Your task to perform on an android device: find snoozed emails in the gmail app Image 0: 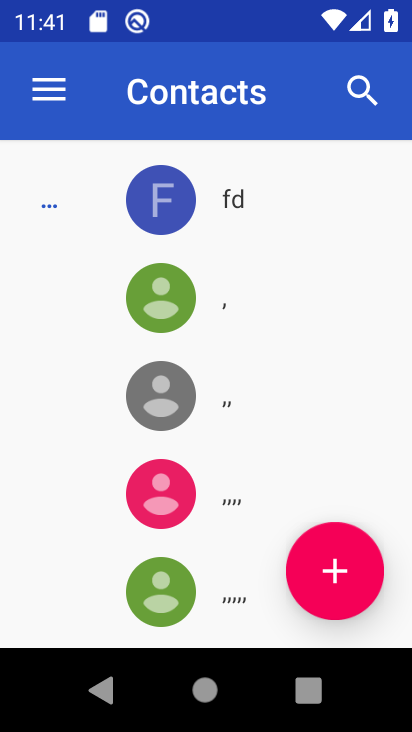
Step 0: press home button
Your task to perform on an android device: find snoozed emails in the gmail app Image 1: 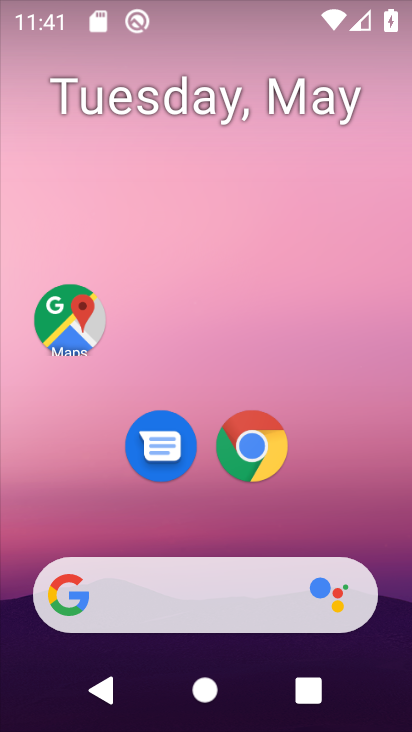
Step 1: drag from (383, 546) to (353, 187)
Your task to perform on an android device: find snoozed emails in the gmail app Image 2: 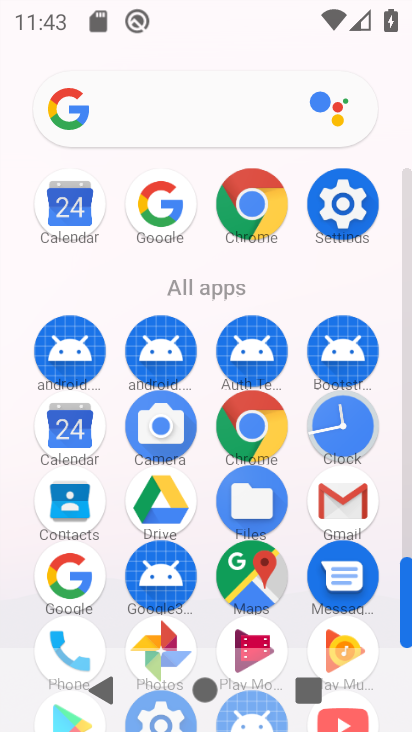
Step 2: click (354, 503)
Your task to perform on an android device: find snoozed emails in the gmail app Image 3: 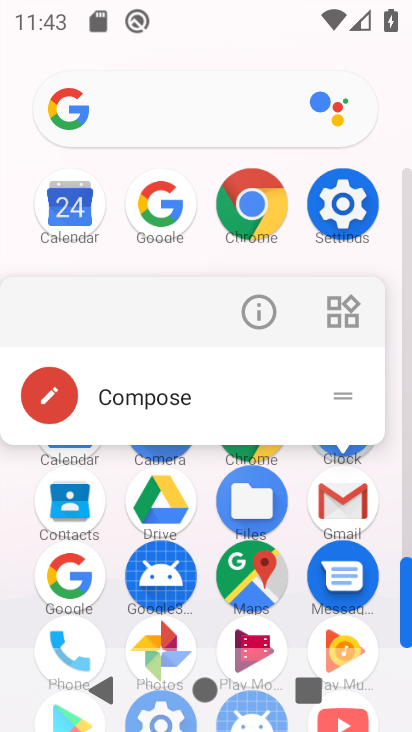
Step 3: click (354, 503)
Your task to perform on an android device: find snoozed emails in the gmail app Image 4: 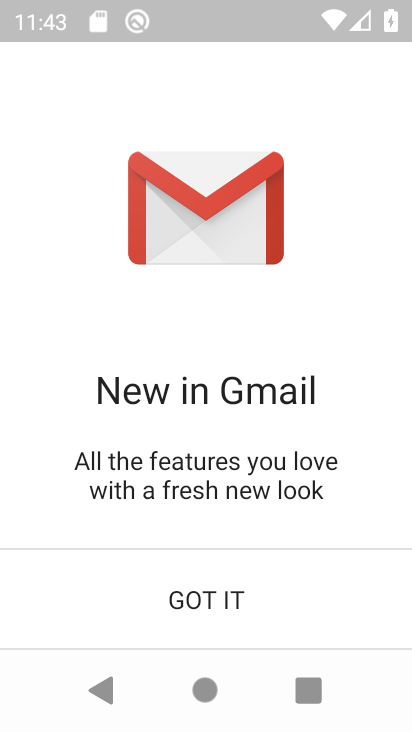
Step 4: click (370, 589)
Your task to perform on an android device: find snoozed emails in the gmail app Image 5: 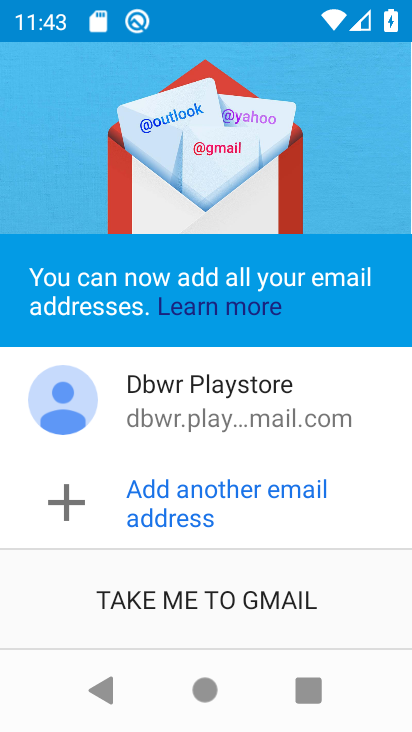
Step 5: click (93, 600)
Your task to perform on an android device: find snoozed emails in the gmail app Image 6: 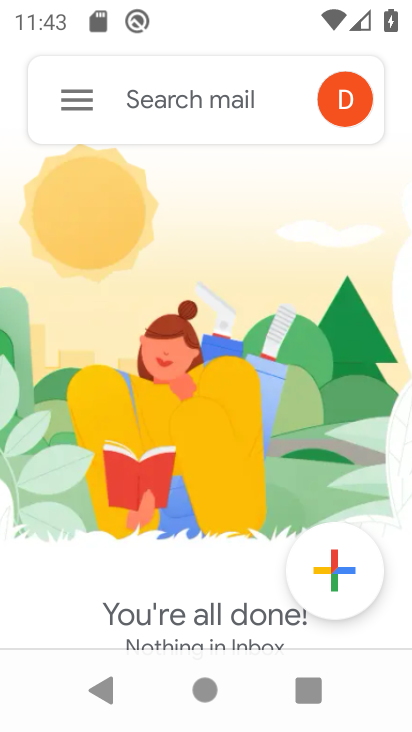
Step 6: click (75, 98)
Your task to perform on an android device: find snoozed emails in the gmail app Image 7: 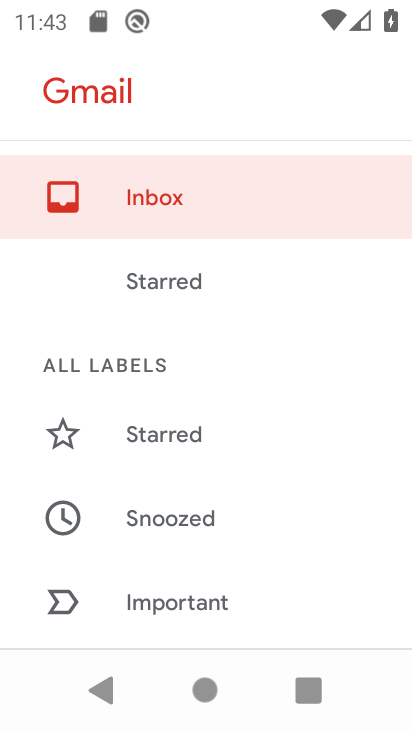
Step 7: drag from (142, 559) to (269, 264)
Your task to perform on an android device: find snoozed emails in the gmail app Image 8: 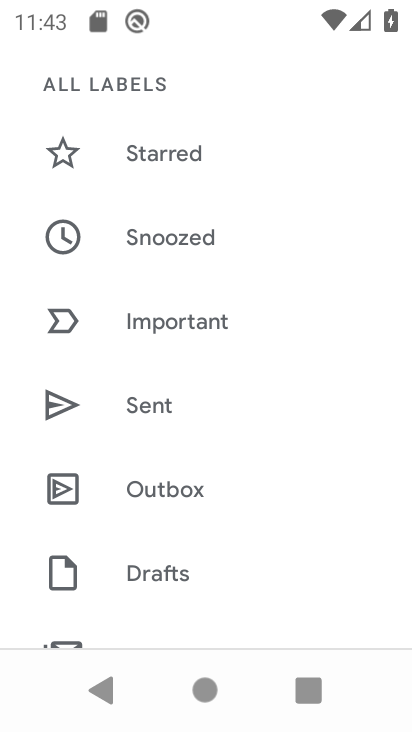
Step 8: drag from (240, 592) to (292, 288)
Your task to perform on an android device: find snoozed emails in the gmail app Image 9: 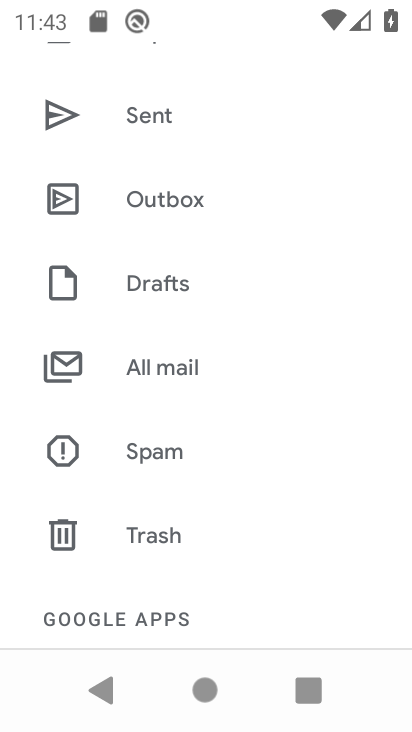
Step 9: drag from (244, 593) to (244, 232)
Your task to perform on an android device: find snoozed emails in the gmail app Image 10: 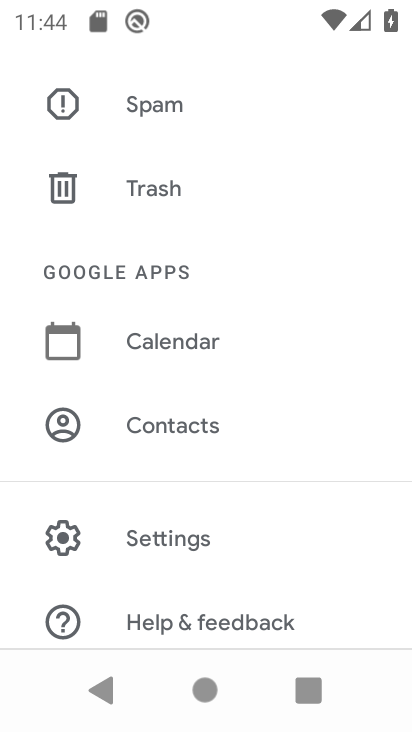
Step 10: drag from (219, 98) to (145, 729)
Your task to perform on an android device: find snoozed emails in the gmail app Image 11: 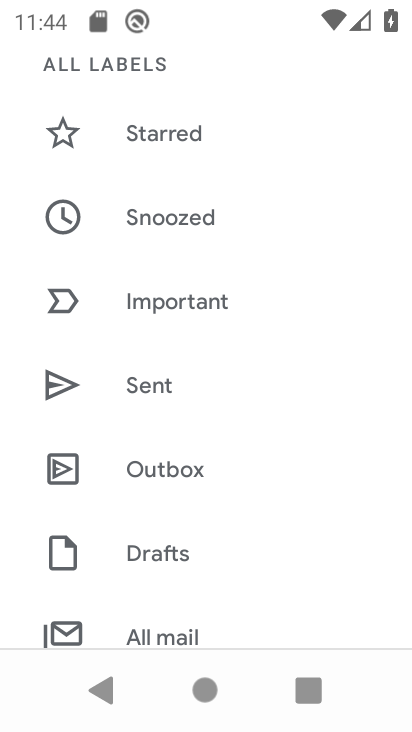
Step 11: click (109, 243)
Your task to perform on an android device: find snoozed emails in the gmail app Image 12: 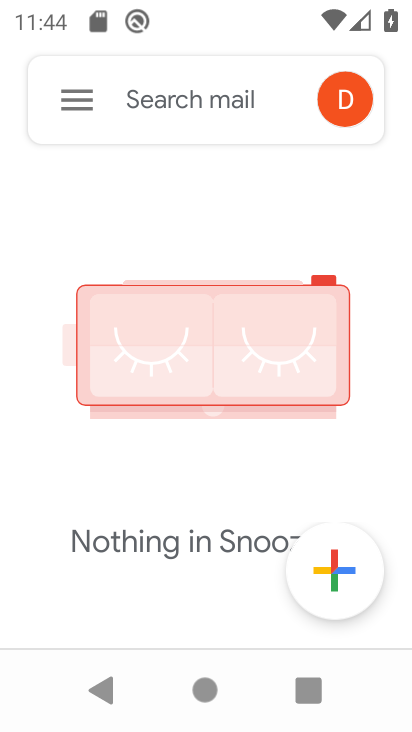
Step 12: task complete